Your task to perform on an android device: check the backup settings in the google photos Image 0: 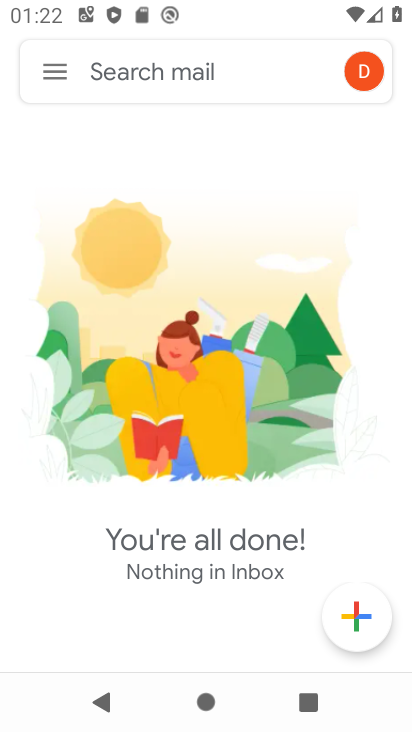
Step 0: press home button
Your task to perform on an android device: check the backup settings in the google photos Image 1: 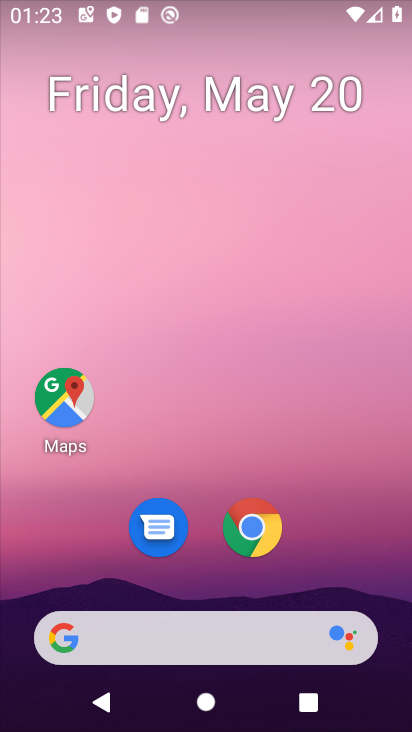
Step 1: drag from (132, 638) to (285, 123)
Your task to perform on an android device: check the backup settings in the google photos Image 2: 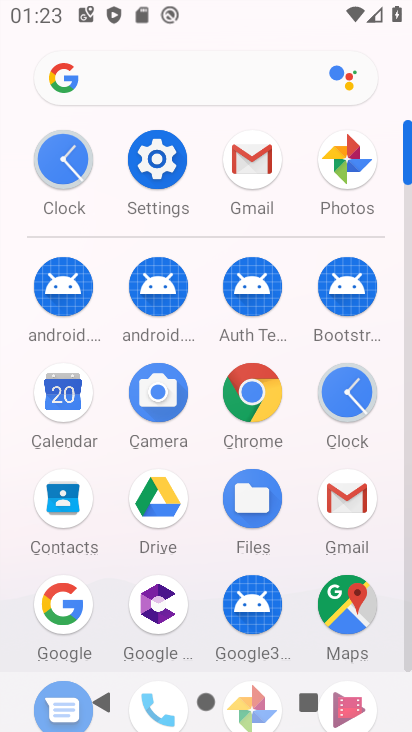
Step 2: drag from (204, 584) to (289, 281)
Your task to perform on an android device: check the backup settings in the google photos Image 3: 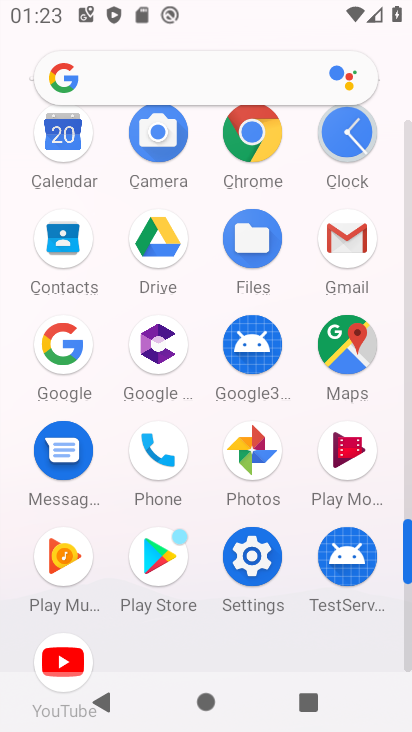
Step 3: click (255, 458)
Your task to perform on an android device: check the backup settings in the google photos Image 4: 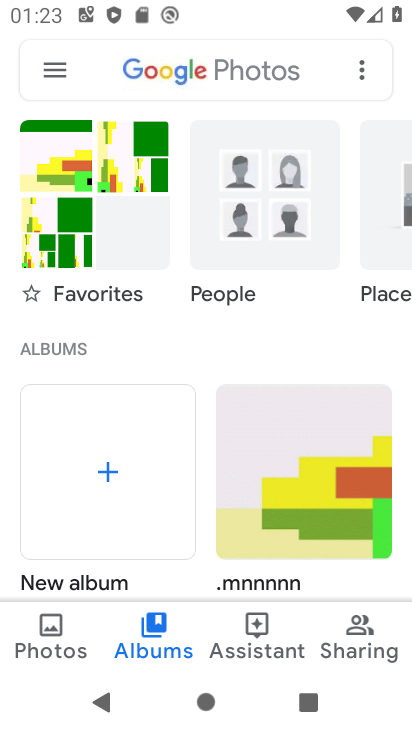
Step 4: click (56, 66)
Your task to perform on an android device: check the backup settings in the google photos Image 5: 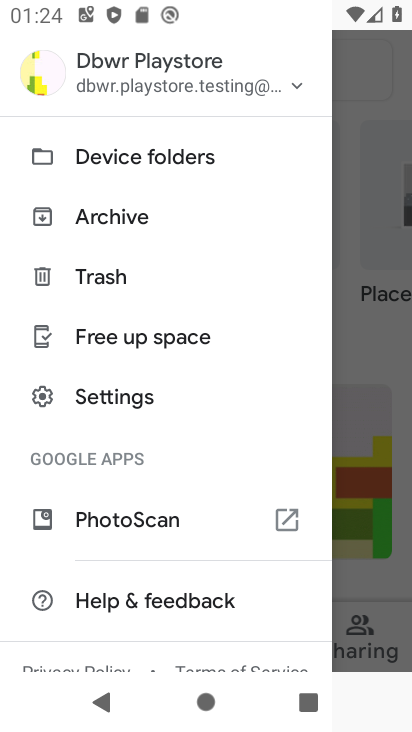
Step 5: click (84, 391)
Your task to perform on an android device: check the backup settings in the google photos Image 6: 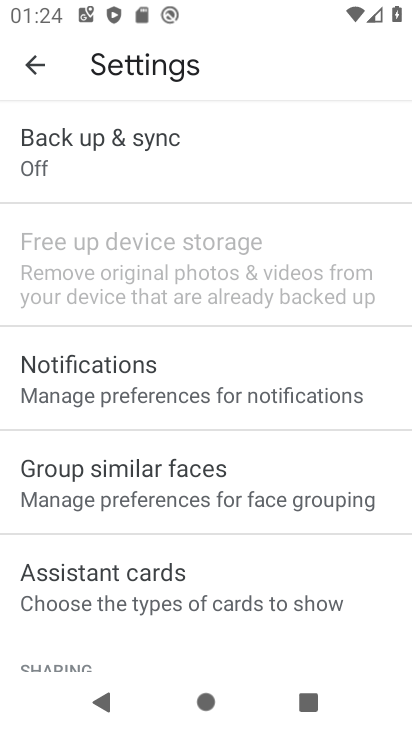
Step 6: click (169, 157)
Your task to perform on an android device: check the backup settings in the google photos Image 7: 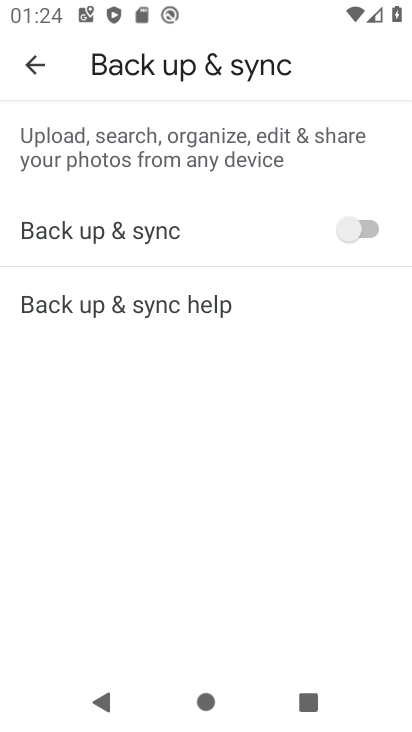
Step 7: task complete